Your task to perform on an android device: toggle location history Image 0: 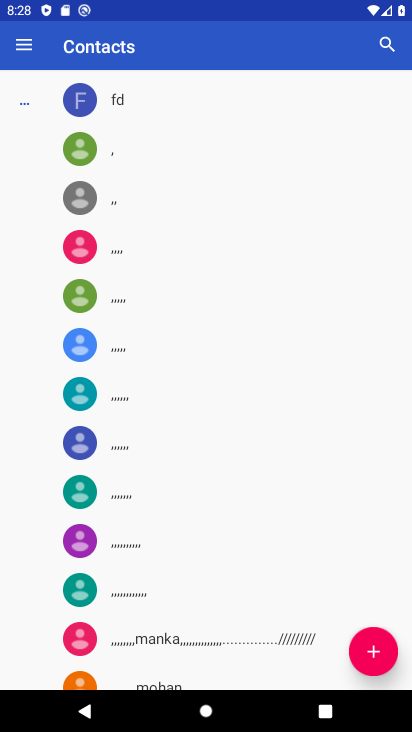
Step 0: press home button
Your task to perform on an android device: toggle location history Image 1: 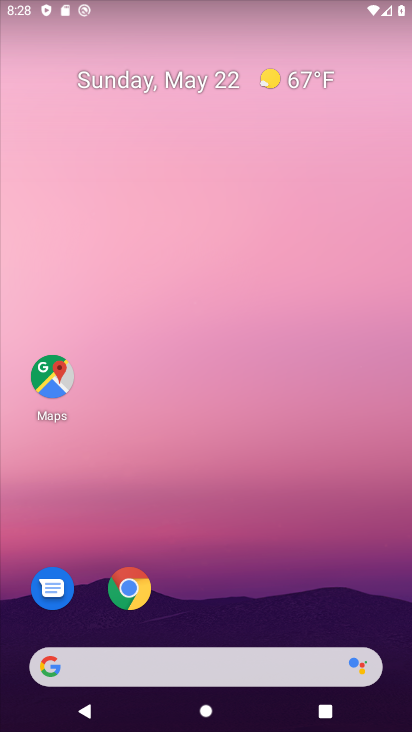
Step 1: drag from (193, 601) to (236, 75)
Your task to perform on an android device: toggle location history Image 2: 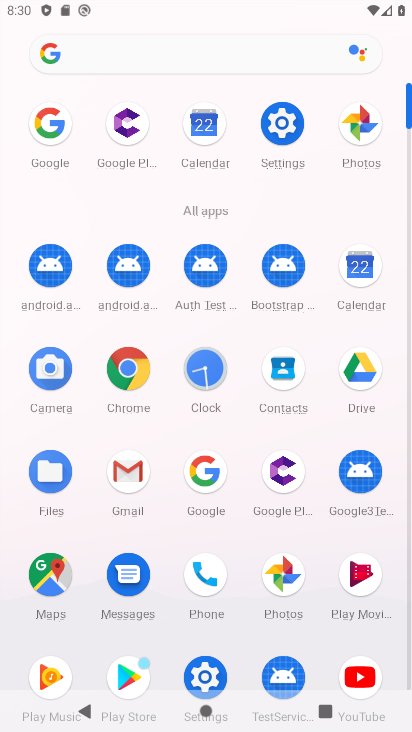
Step 2: click (280, 139)
Your task to perform on an android device: toggle location history Image 3: 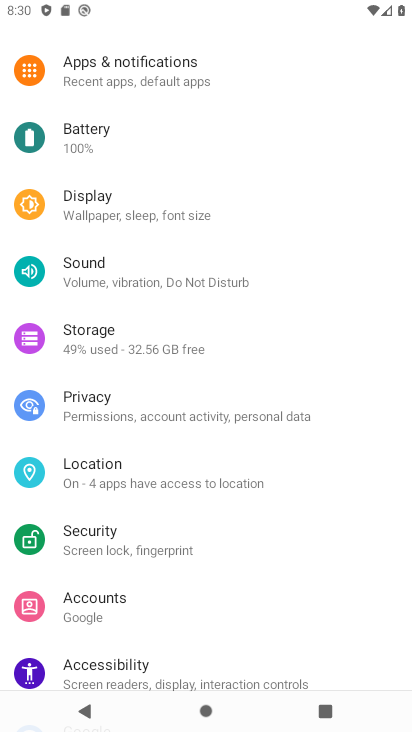
Step 3: click (158, 482)
Your task to perform on an android device: toggle location history Image 4: 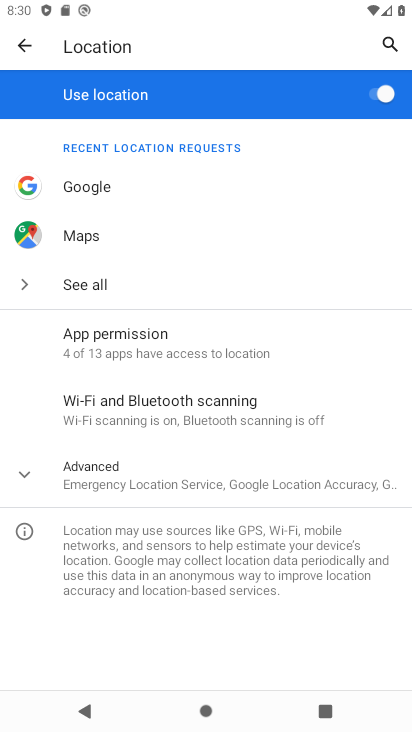
Step 4: click (181, 491)
Your task to perform on an android device: toggle location history Image 5: 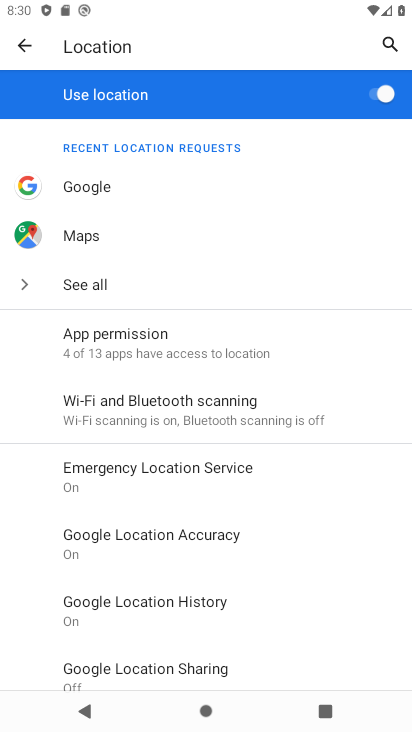
Step 5: click (231, 617)
Your task to perform on an android device: toggle location history Image 6: 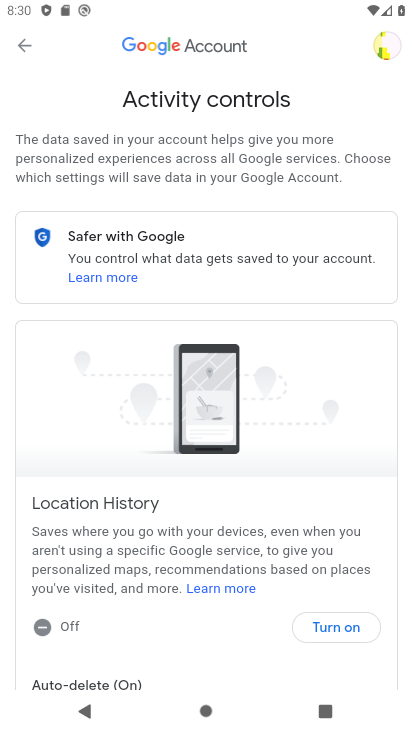
Step 6: drag from (227, 619) to (244, 379)
Your task to perform on an android device: toggle location history Image 7: 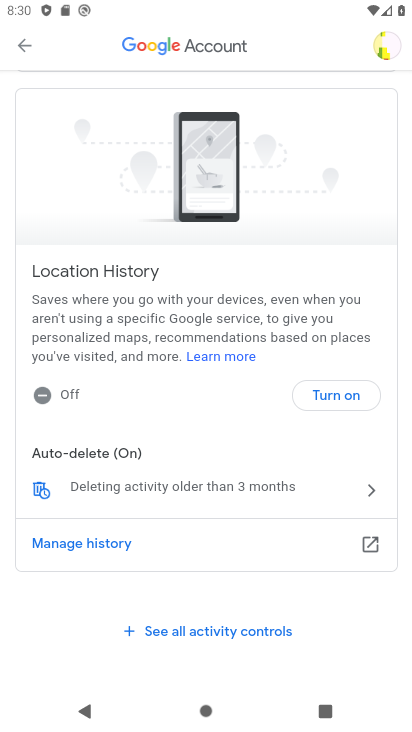
Step 7: click (343, 402)
Your task to perform on an android device: toggle location history Image 8: 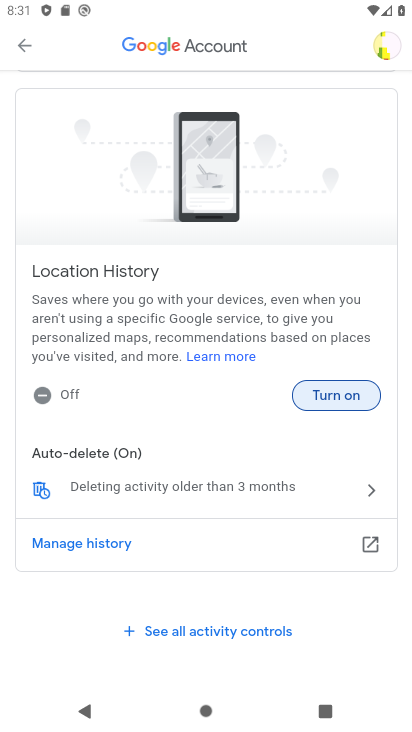
Step 8: task complete